Your task to perform on an android device: read, delete, or share a saved page in the chrome app Image 0: 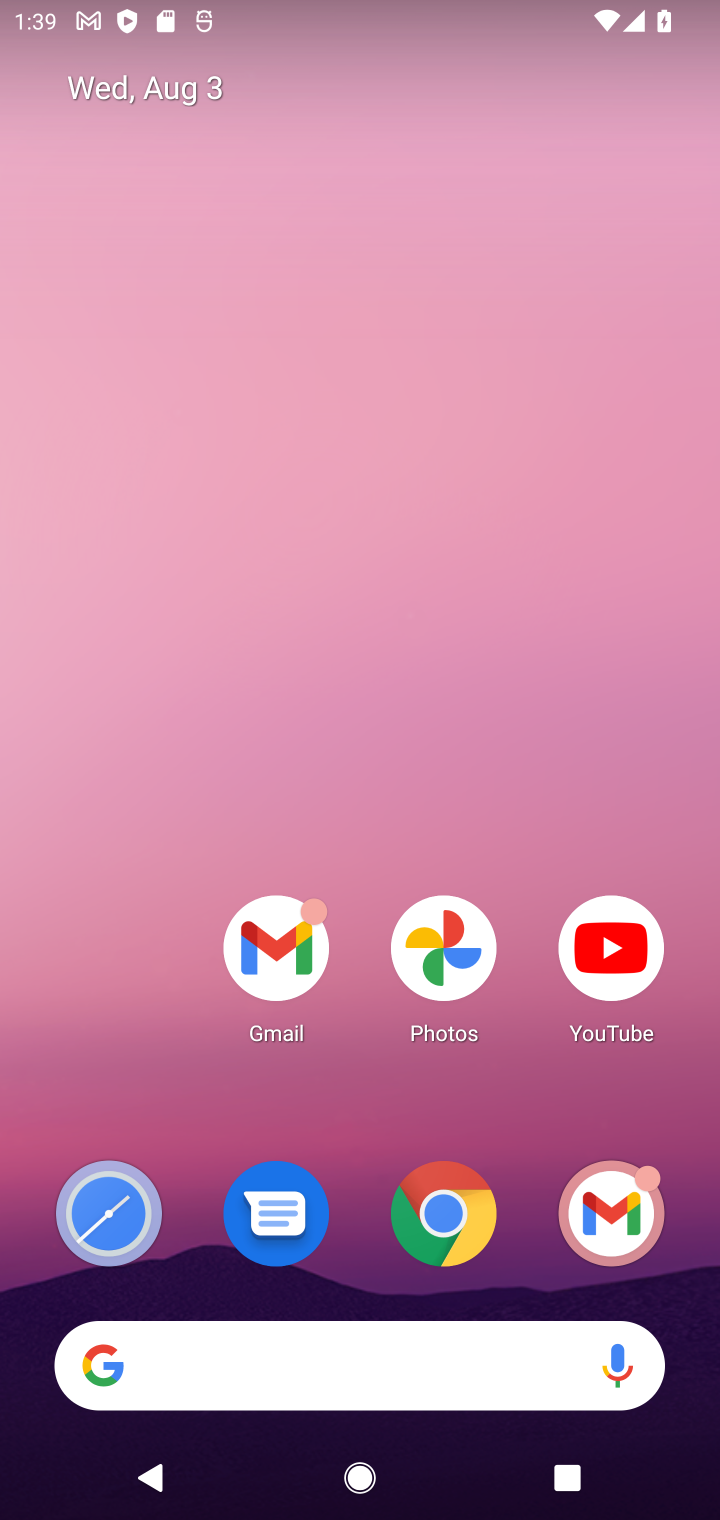
Step 0: drag from (528, 692) to (708, 545)
Your task to perform on an android device: read, delete, or share a saved page in the chrome app Image 1: 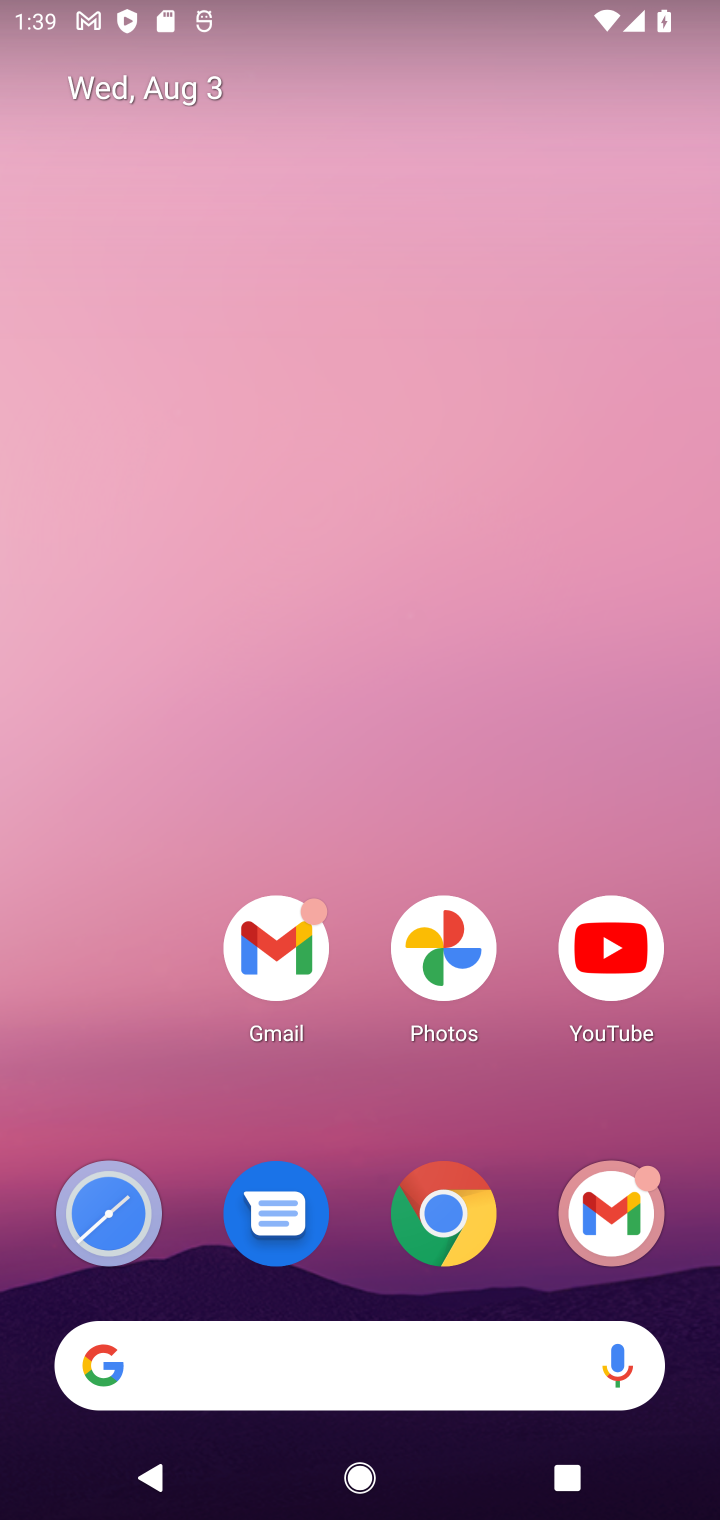
Step 1: click (440, 544)
Your task to perform on an android device: read, delete, or share a saved page in the chrome app Image 2: 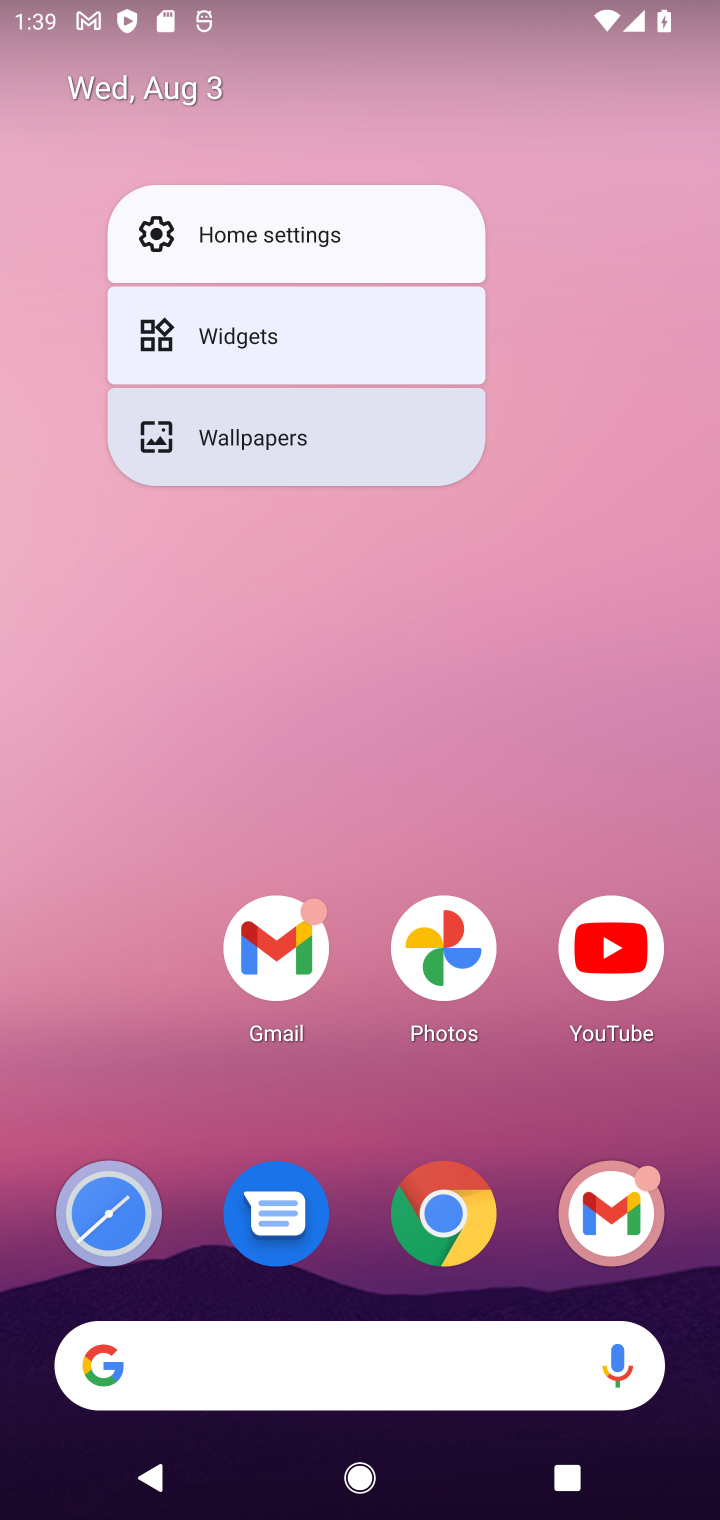
Step 2: drag from (468, 1279) to (610, 5)
Your task to perform on an android device: read, delete, or share a saved page in the chrome app Image 3: 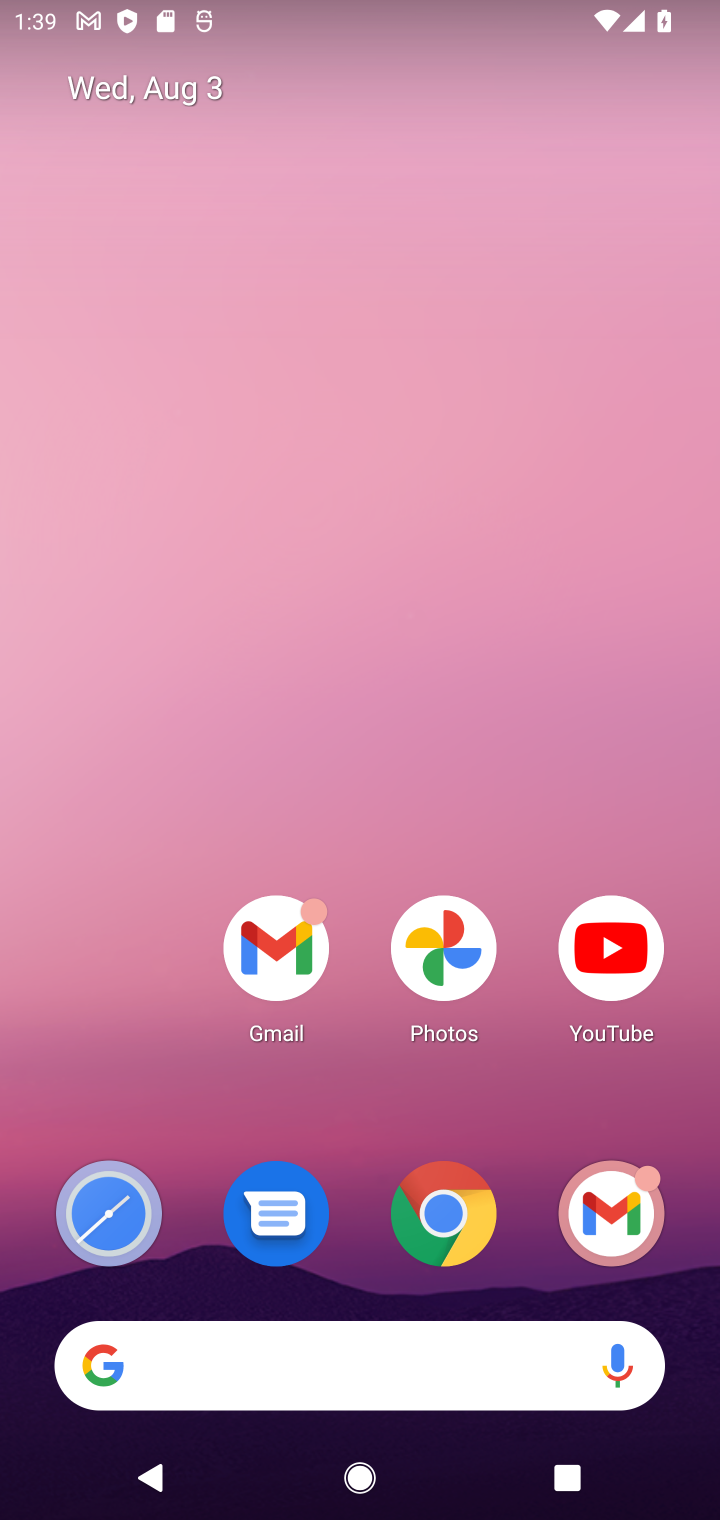
Step 3: drag from (382, 1362) to (319, 9)
Your task to perform on an android device: read, delete, or share a saved page in the chrome app Image 4: 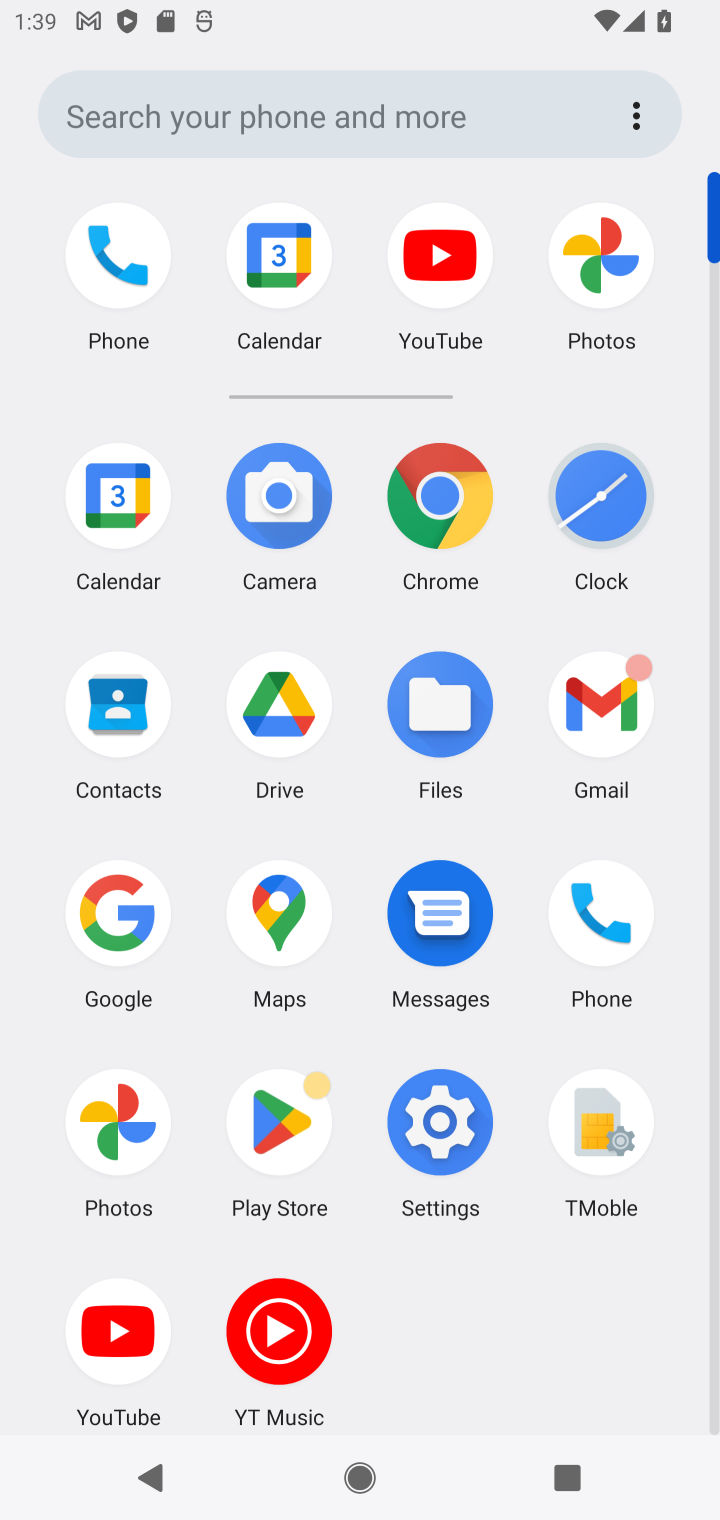
Step 4: click (458, 515)
Your task to perform on an android device: read, delete, or share a saved page in the chrome app Image 5: 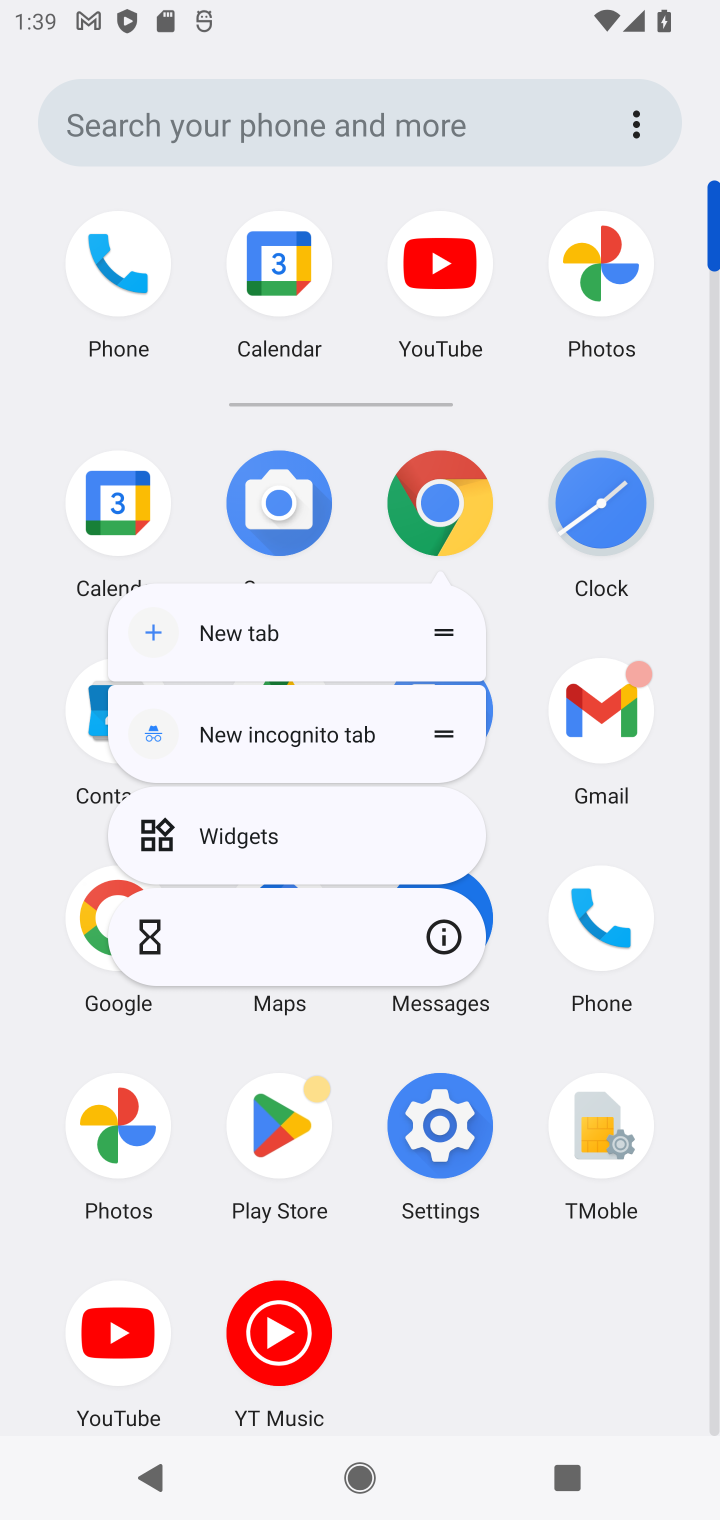
Step 5: click (458, 515)
Your task to perform on an android device: read, delete, or share a saved page in the chrome app Image 6: 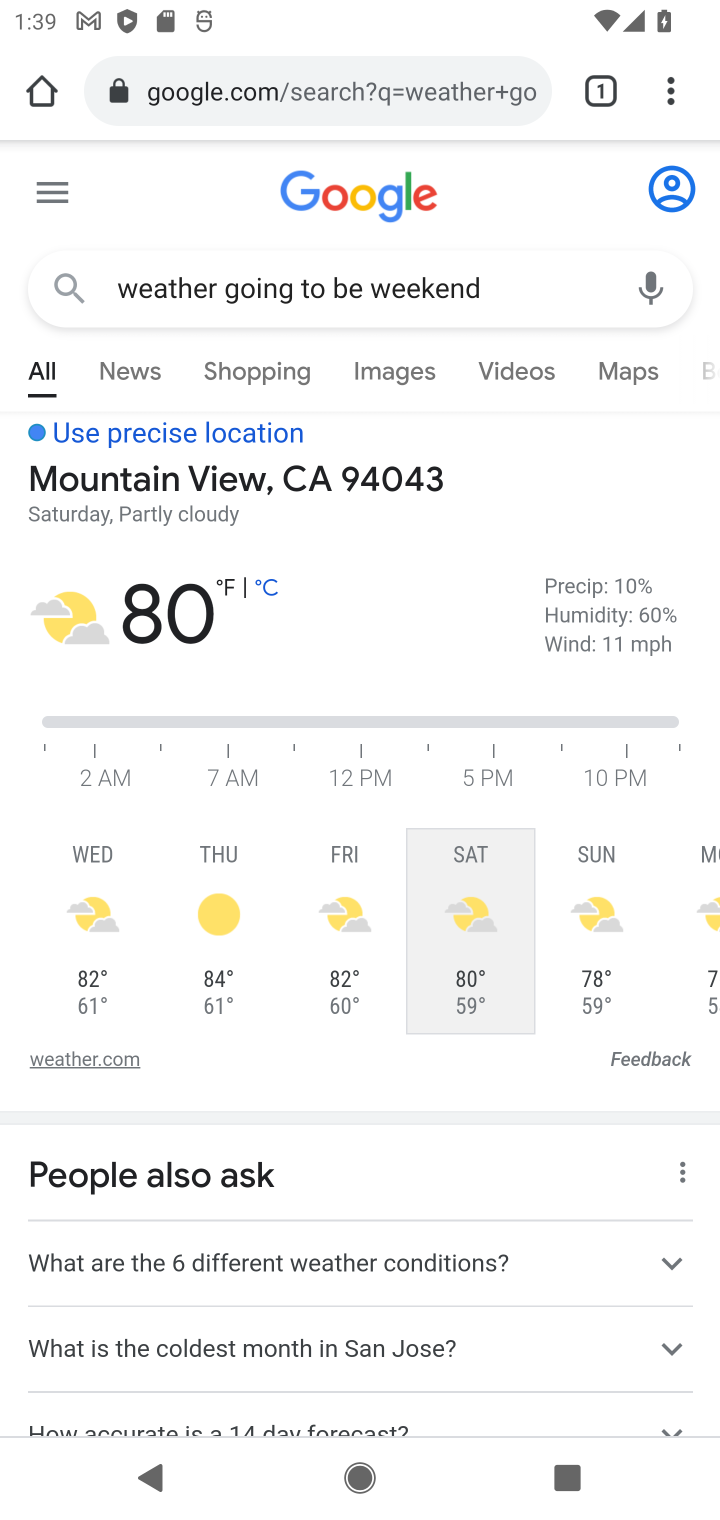
Step 6: task complete